Your task to perform on an android device: Go to Android settings Image 0: 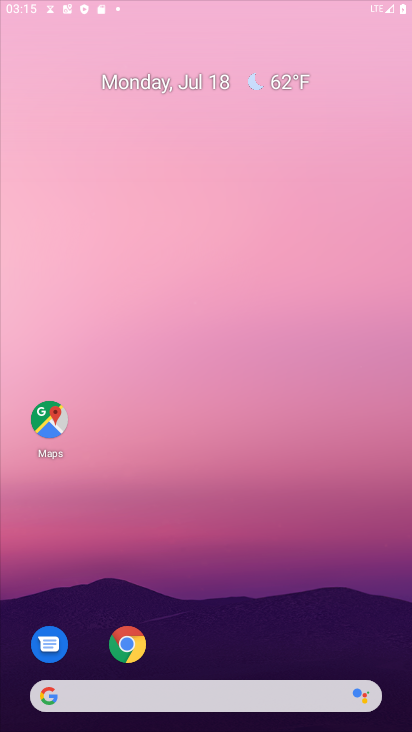
Step 0: press back button
Your task to perform on an android device: Go to Android settings Image 1: 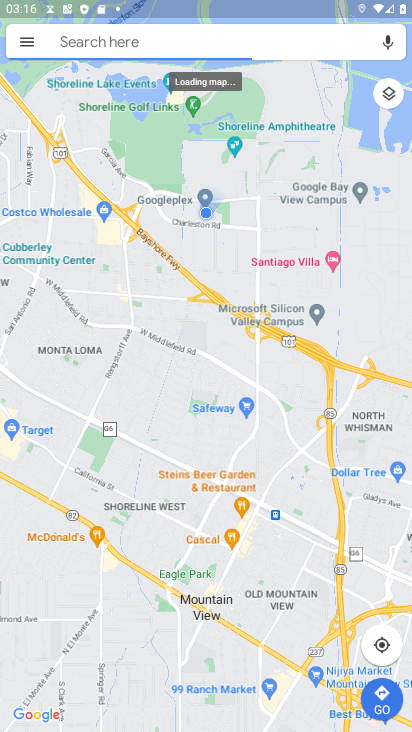
Step 1: press home button
Your task to perform on an android device: Go to Android settings Image 2: 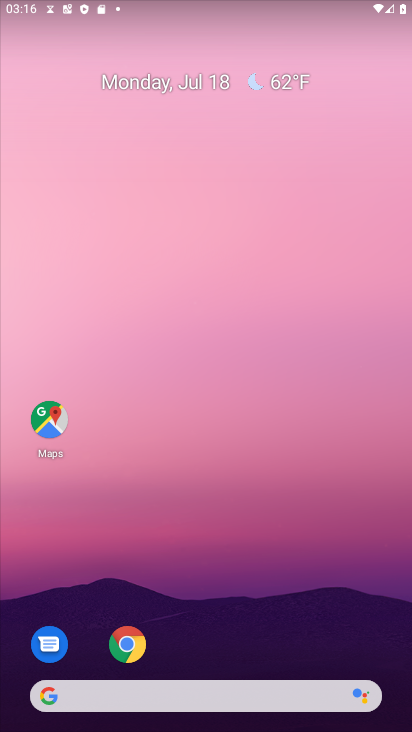
Step 2: drag from (328, 642) to (197, 137)
Your task to perform on an android device: Go to Android settings Image 3: 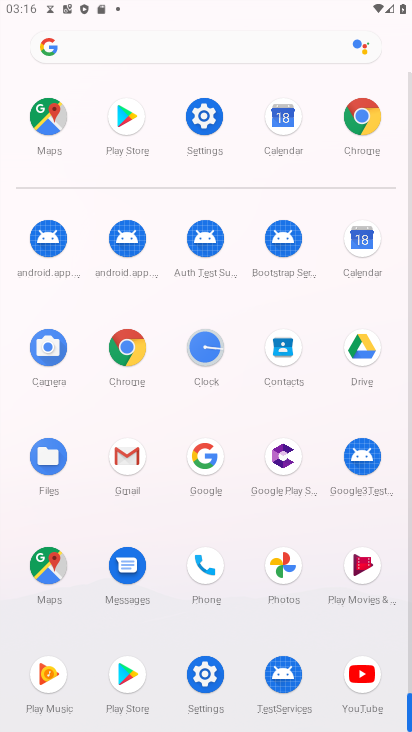
Step 3: drag from (250, 513) to (264, 38)
Your task to perform on an android device: Go to Android settings Image 4: 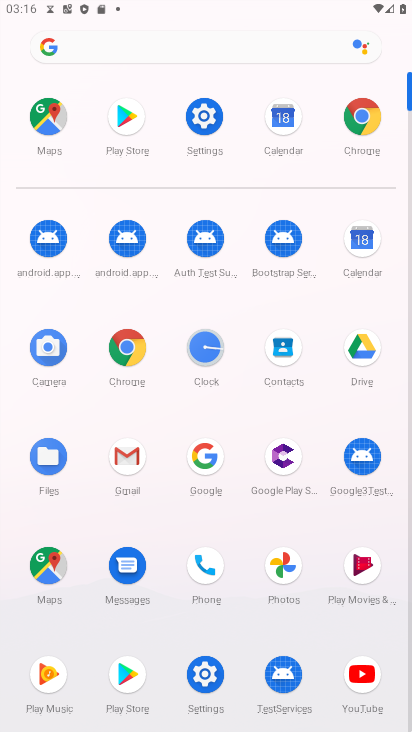
Step 4: click (200, 106)
Your task to perform on an android device: Go to Android settings Image 5: 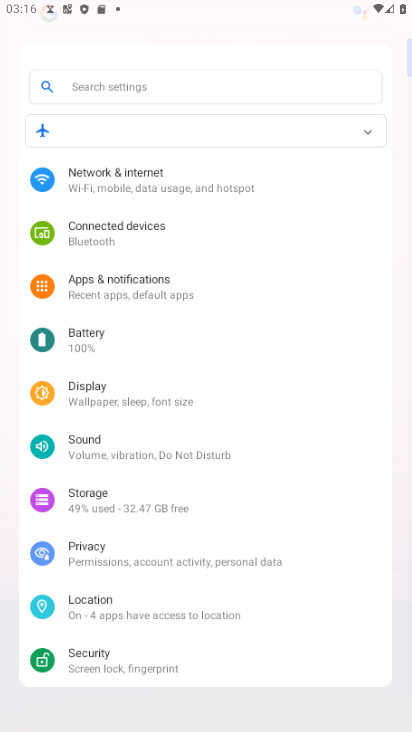
Step 5: click (208, 118)
Your task to perform on an android device: Go to Android settings Image 6: 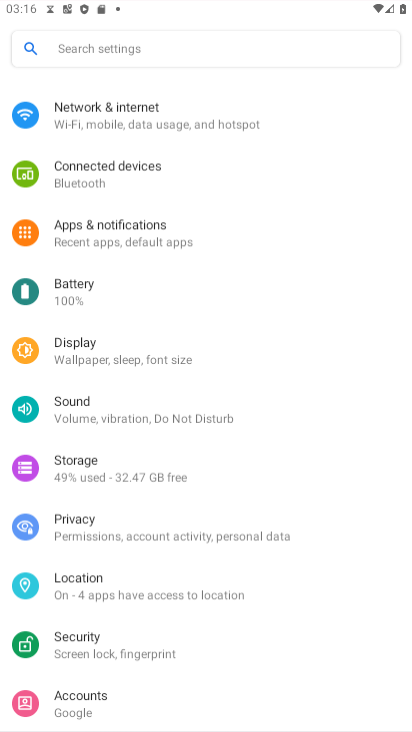
Step 6: click (208, 118)
Your task to perform on an android device: Go to Android settings Image 7: 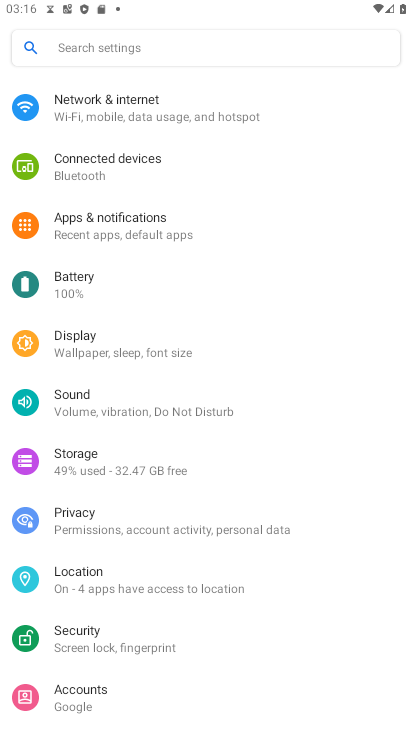
Step 7: click (211, 122)
Your task to perform on an android device: Go to Android settings Image 8: 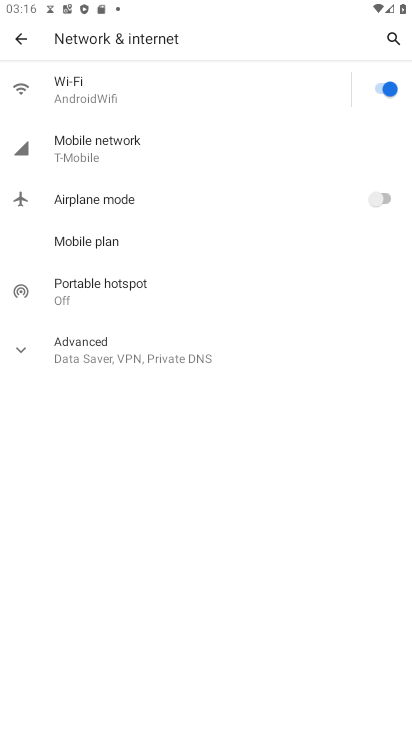
Step 8: click (16, 33)
Your task to perform on an android device: Go to Android settings Image 9: 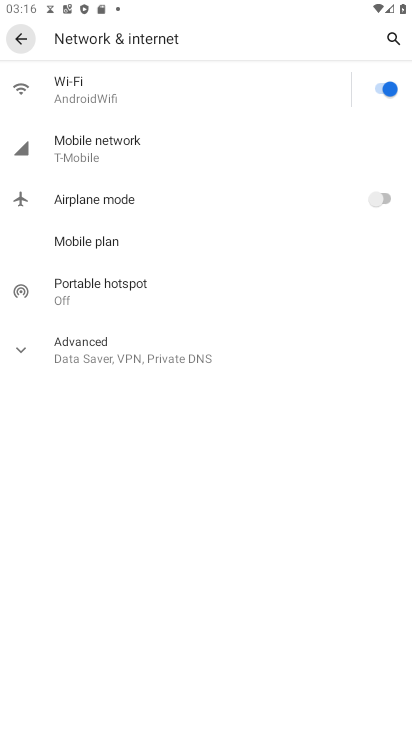
Step 9: click (17, 32)
Your task to perform on an android device: Go to Android settings Image 10: 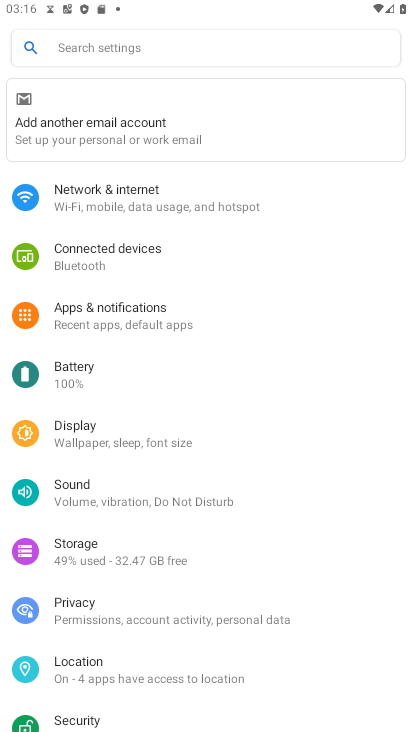
Step 10: drag from (151, 662) to (86, 82)
Your task to perform on an android device: Go to Android settings Image 11: 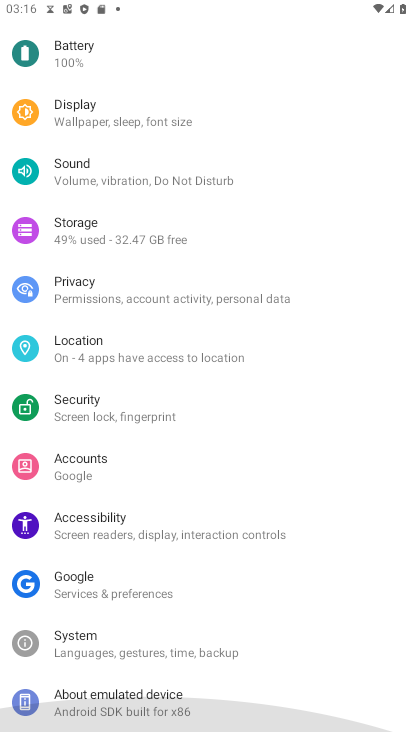
Step 11: drag from (167, 537) to (126, 156)
Your task to perform on an android device: Go to Android settings Image 12: 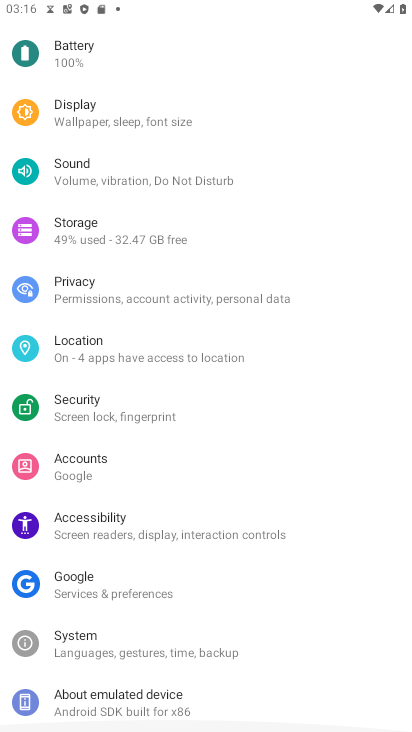
Step 12: drag from (138, 566) to (96, 318)
Your task to perform on an android device: Go to Android settings Image 13: 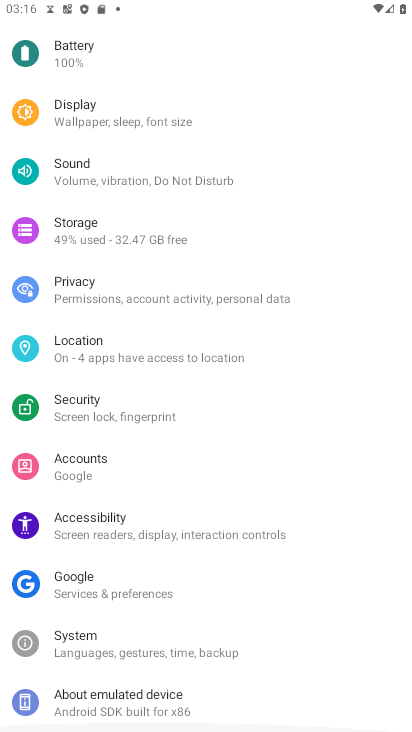
Step 13: click (97, 704)
Your task to perform on an android device: Go to Android settings Image 14: 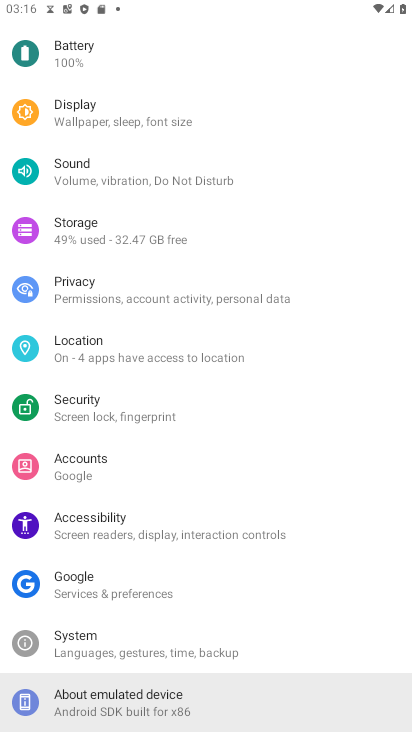
Step 14: click (100, 693)
Your task to perform on an android device: Go to Android settings Image 15: 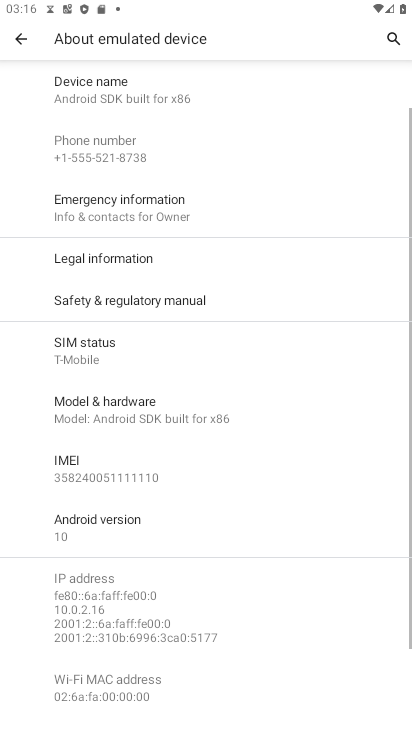
Step 15: task complete